Your task to perform on an android device: Open the stopwatch Image 0: 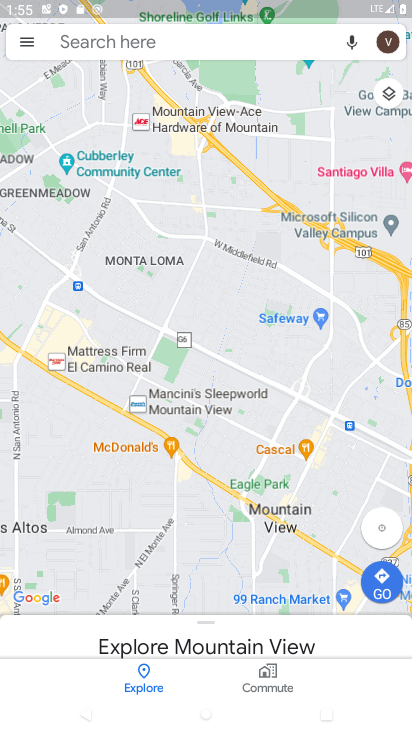
Step 0: press home button
Your task to perform on an android device: Open the stopwatch Image 1: 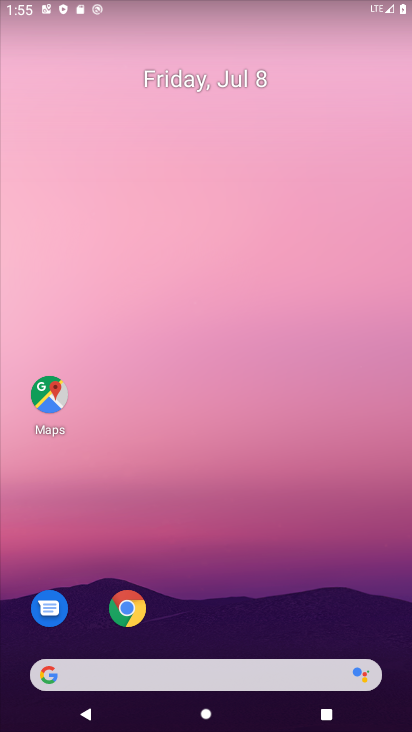
Step 1: drag from (366, 625) to (306, 61)
Your task to perform on an android device: Open the stopwatch Image 2: 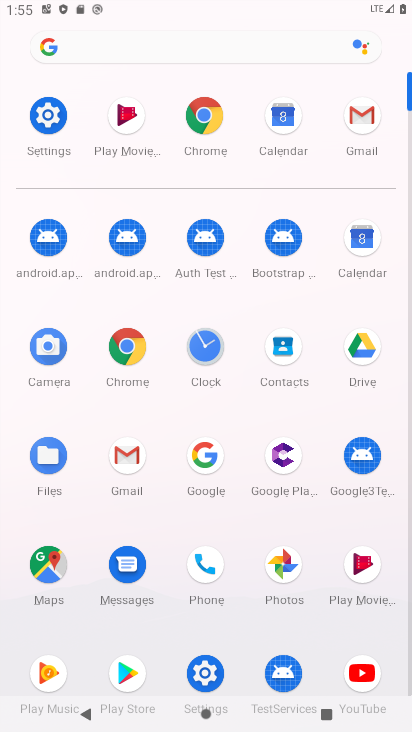
Step 2: click (203, 345)
Your task to perform on an android device: Open the stopwatch Image 3: 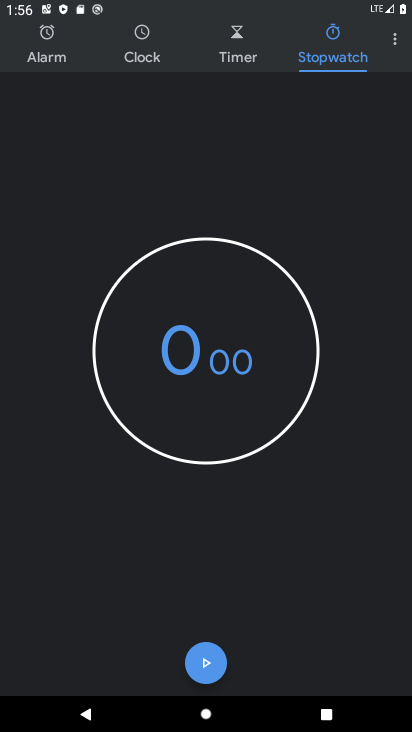
Step 3: task complete